Your task to perform on an android device: check data usage Image 0: 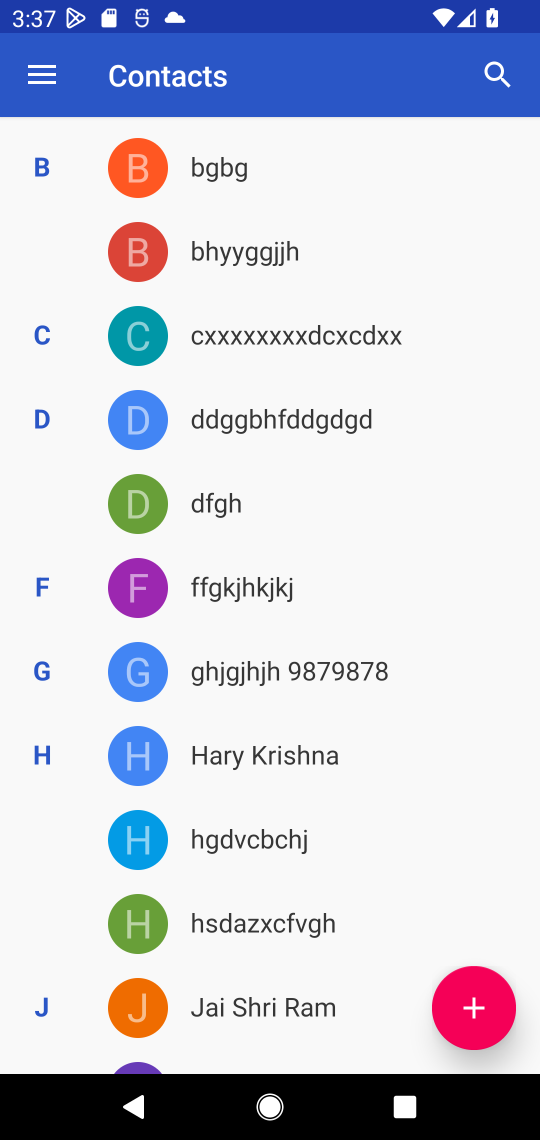
Step 0: press home button
Your task to perform on an android device: check data usage Image 1: 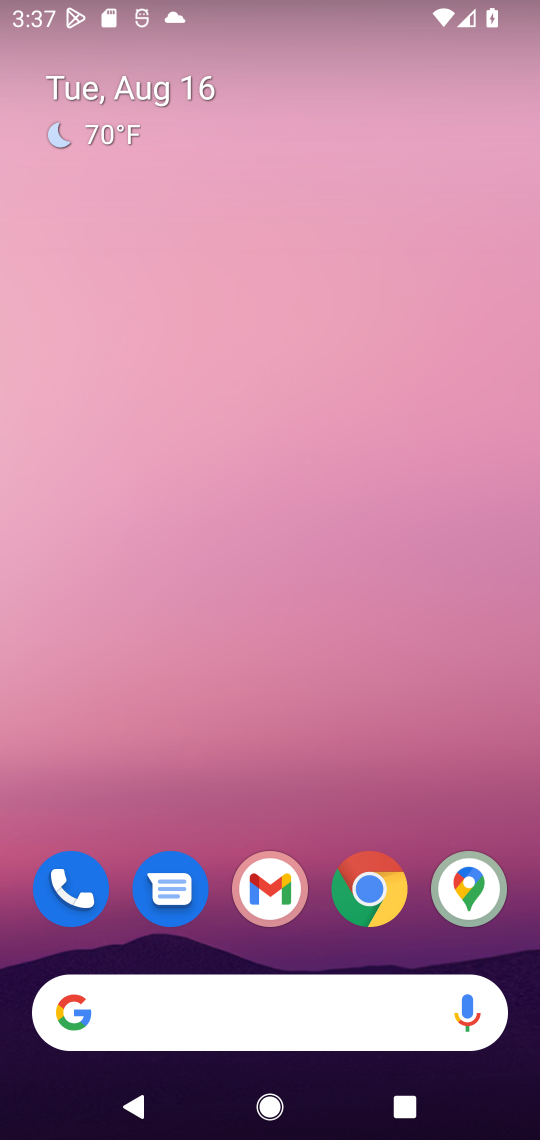
Step 1: drag from (194, 780) to (222, 187)
Your task to perform on an android device: check data usage Image 2: 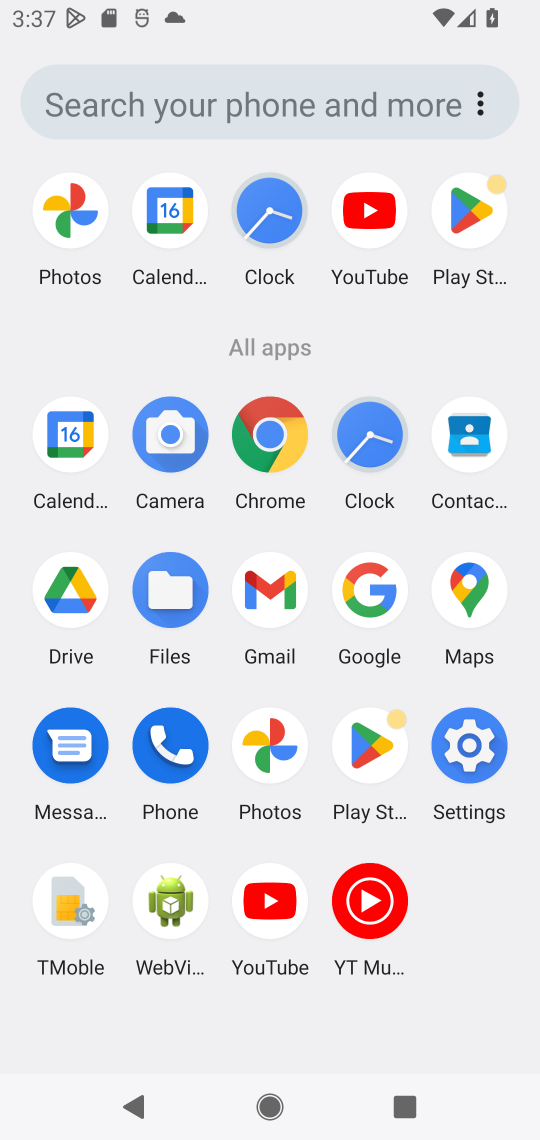
Step 2: click (455, 744)
Your task to perform on an android device: check data usage Image 3: 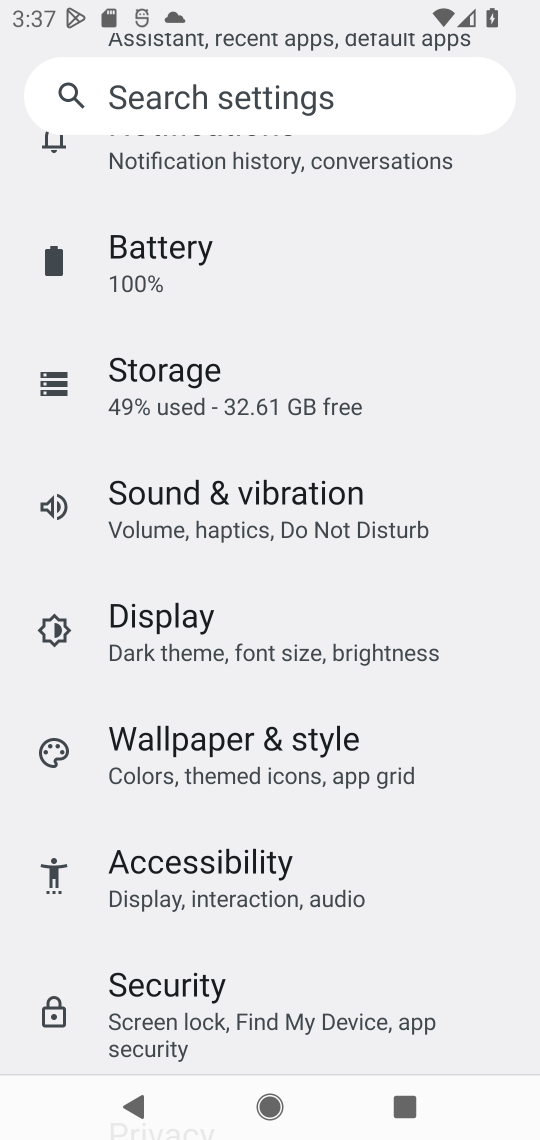
Step 3: task complete